Your task to perform on an android device: Show me recent news Image 0: 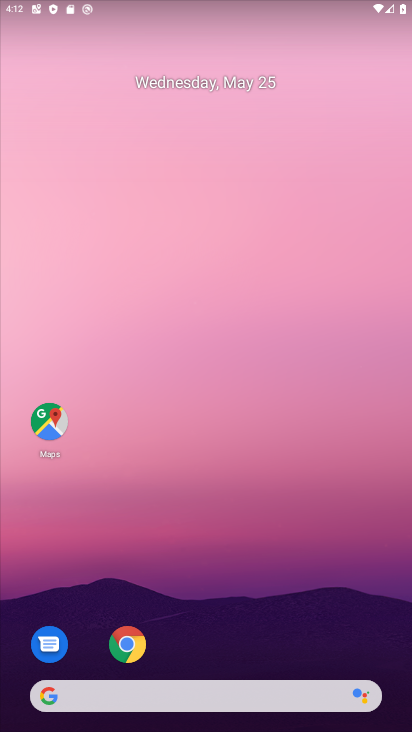
Step 0: click (104, 696)
Your task to perform on an android device: Show me recent news Image 1: 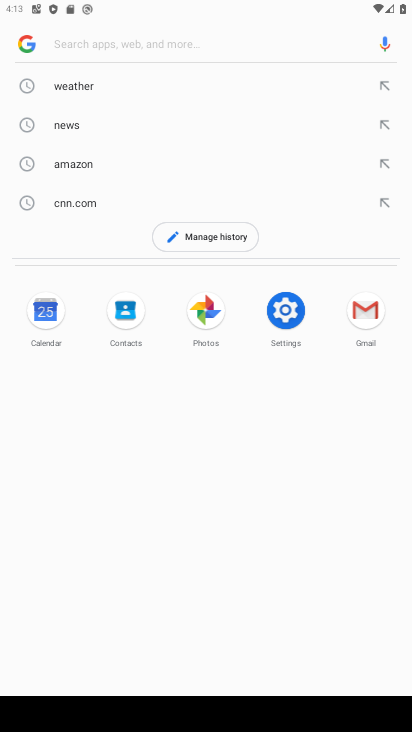
Step 1: type "recent news"
Your task to perform on an android device: Show me recent news Image 2: 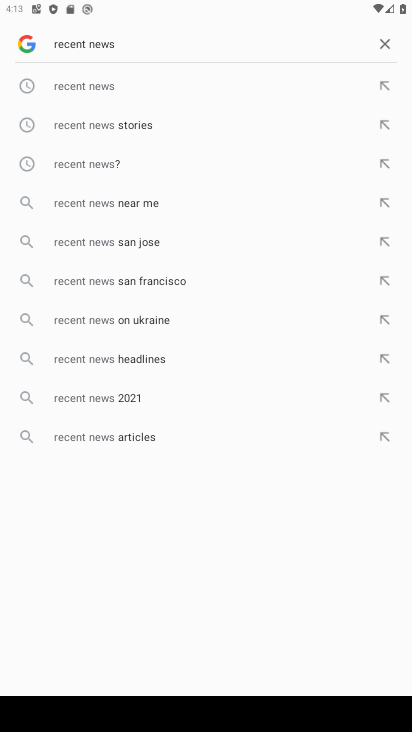
Step 2: click (68, 88)
Your task to perform on an android device: Show me recent news Image 3: 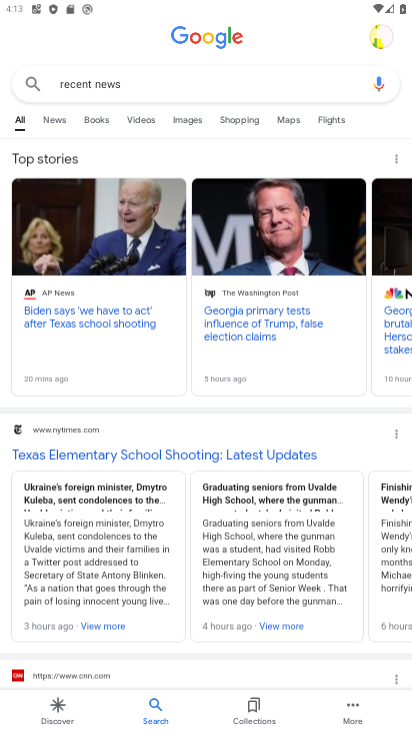
Step 3: click (87, 288)
Your task to perform on an android device: Show me recent news Image 4: 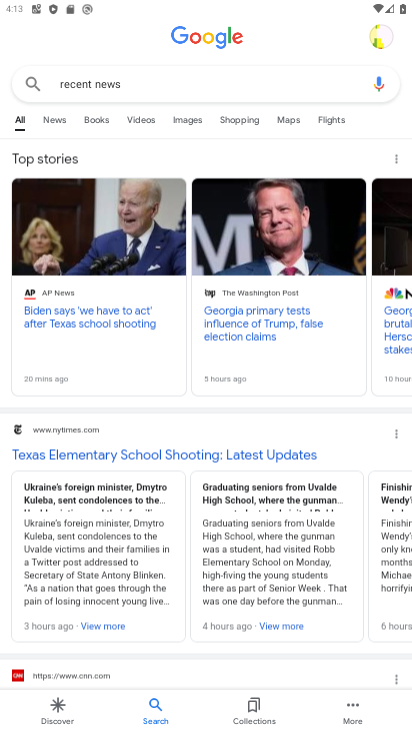
Step 4: click (87, 315)
Your task to perform on an android device: Show me recent news Image 5: 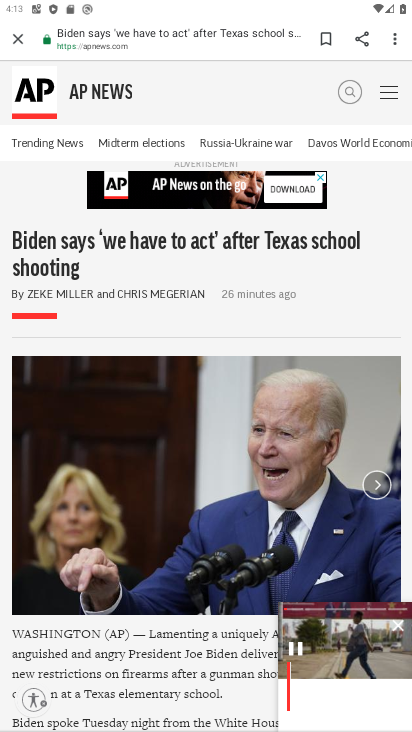
Step 5: task complete